Your task to perform on an android device: Open settings Image 0: 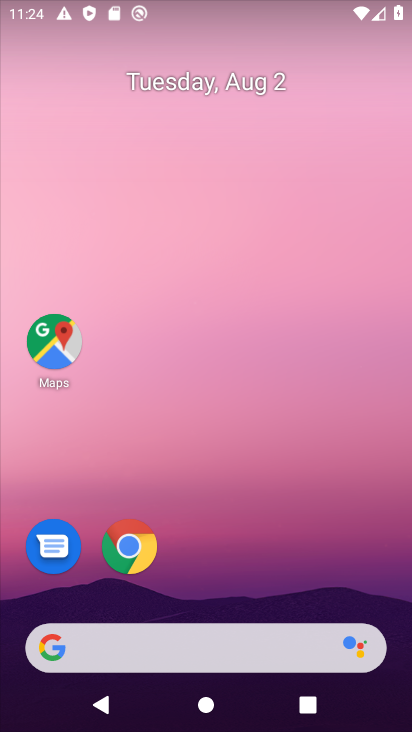
Step 0: drag from (222, 553) to (202, 8)
Your task to perform on an android device: Open settings Image 1: 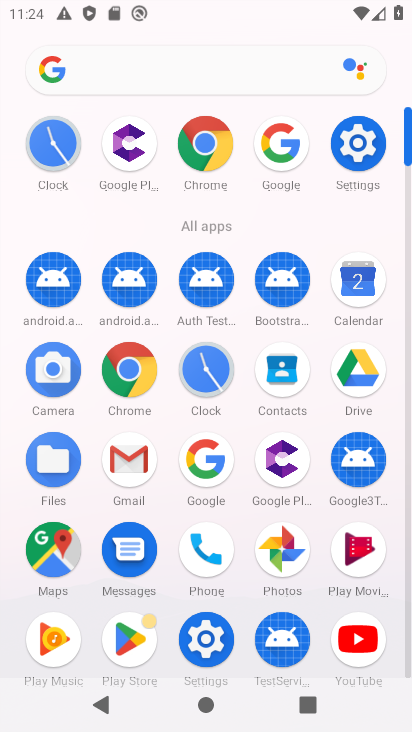
Step 1: click (331, 160)
Your task to perform on an android device: Open settings Image 2: 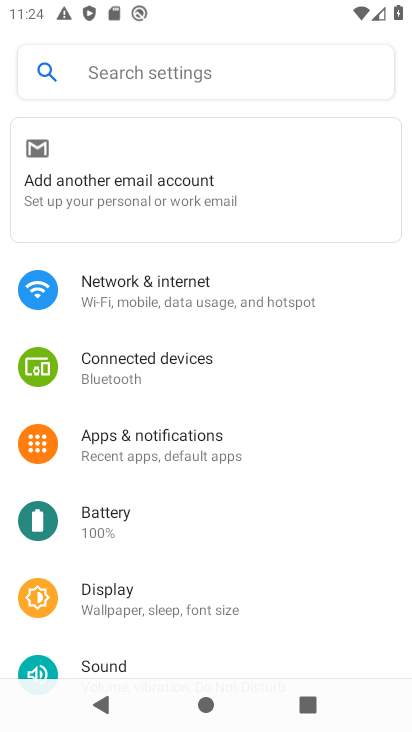
Step 2: task complete